Your task to perform on an android device: toggle priority inbox in the gmail app Image 0: 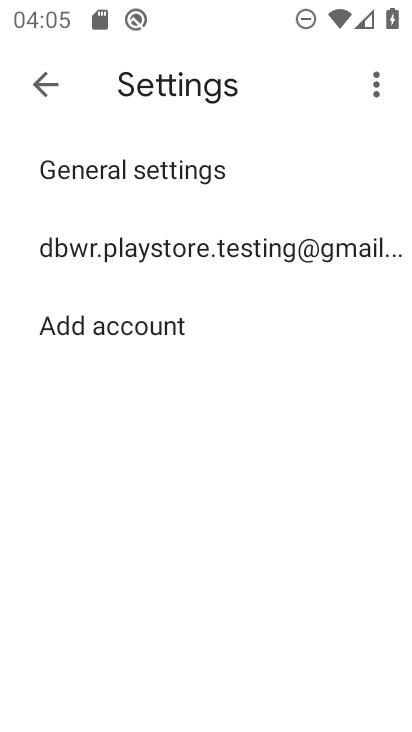
Step 0: press home button
Your task to perform on an android device: toggle priority inbox in the gmail app Image 1: 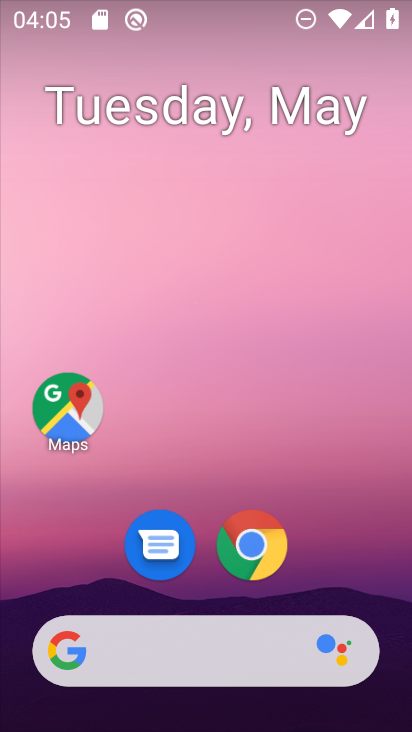
Step 1: drag from (390, 616) to (321, 14)
Your task to perform on an android device: toggle priority inbox in the gmail app Image 2: 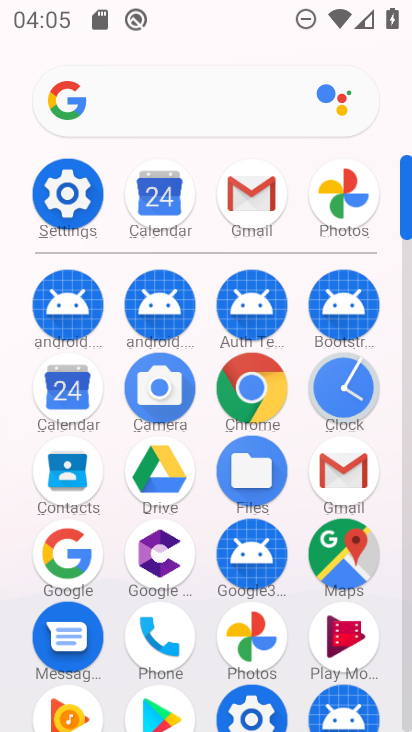
Step 2: click (345, 473)
Your task to perform on an android device: toggle priority inbox in the gmail app Image 3: 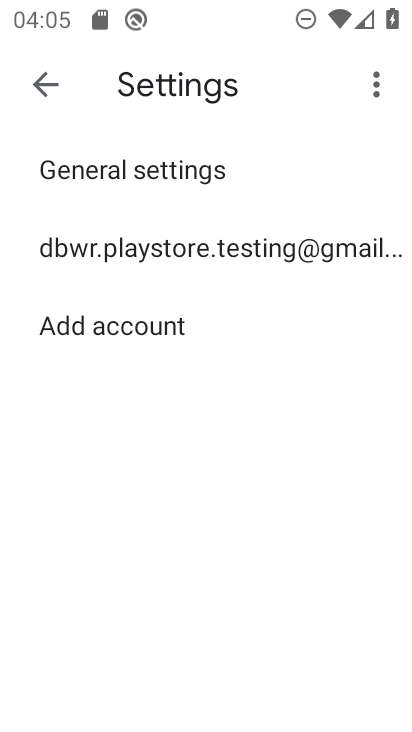
Step 3: click (125, 251)
Your task to perform on an android device: toggle priority inbox in the gmail app Image 4: 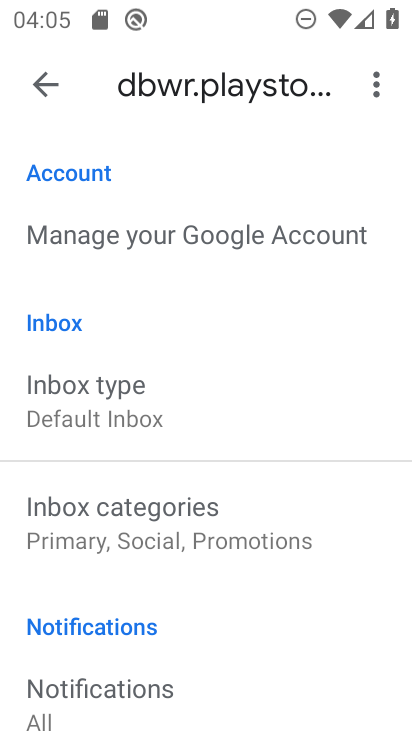
Step 4: click (58, 406)
Your task to perform on an android device: toggle priority inbox in the gmail app Image 5: 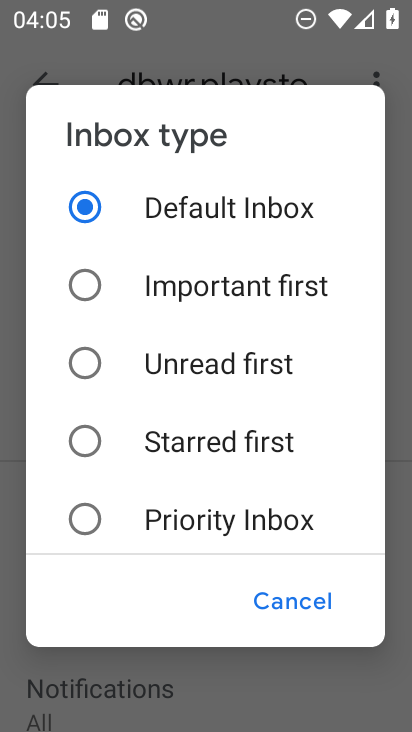
Step 5: click (80, 528)
Your task to perform on an android device: toggle priority inbox in the gmail app Image 6: 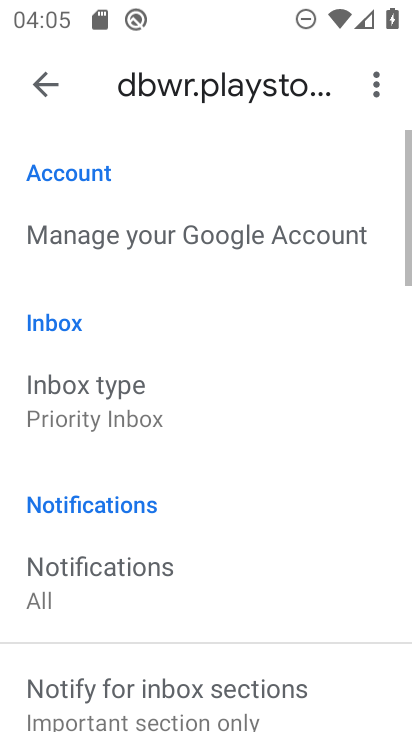
Step 6: task complete